Your task to perform on an android device: find which apps use the phone's location Image 0: 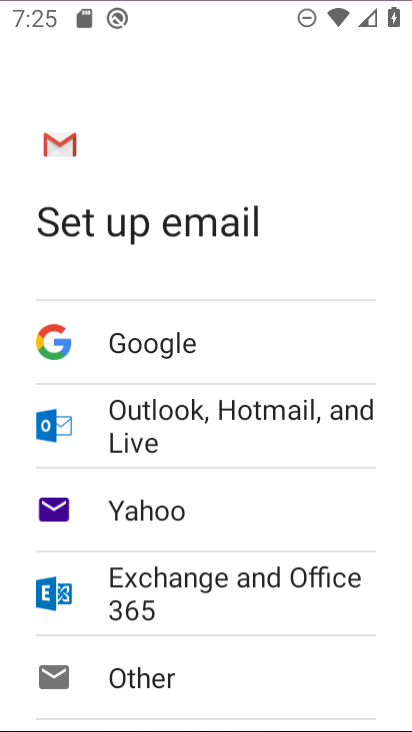
Step 0: drag from (345, 526) to (183, 20)
Your task to perform on an android device: find which apps use the phone's location Image 1: 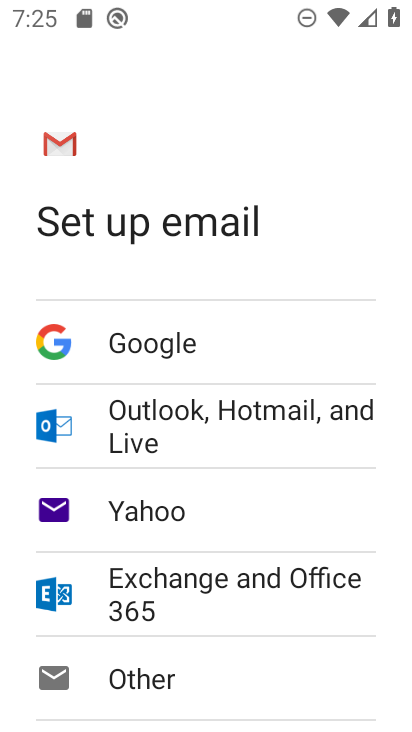
Step 1: press home button
Your task to perform on an android device: find which apps use the phone's location Image 2: 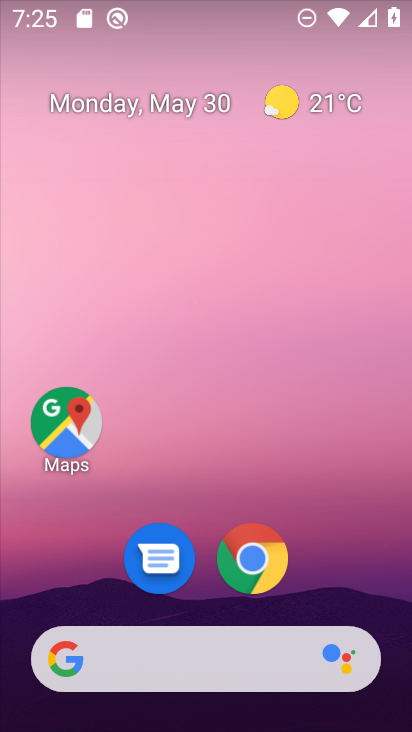
Step 2: drag from (330, 504) to (208, 33)
Your task to perform on an android device: find which apps use the phone's location Image 3: 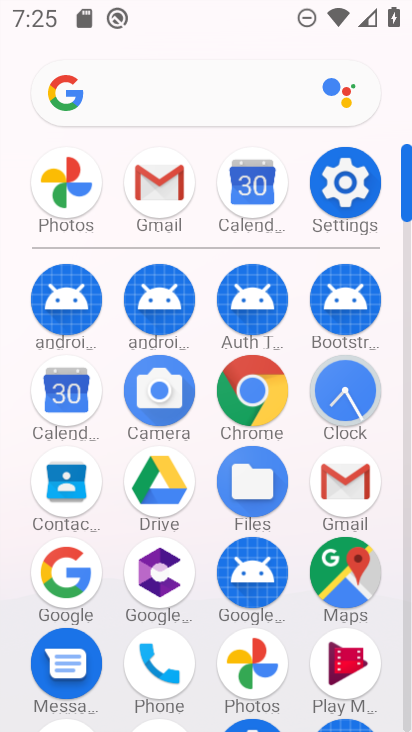
Step 3: click (343, 194)
Your task to perform on an android device: find which apps use the phone's location Image 4: 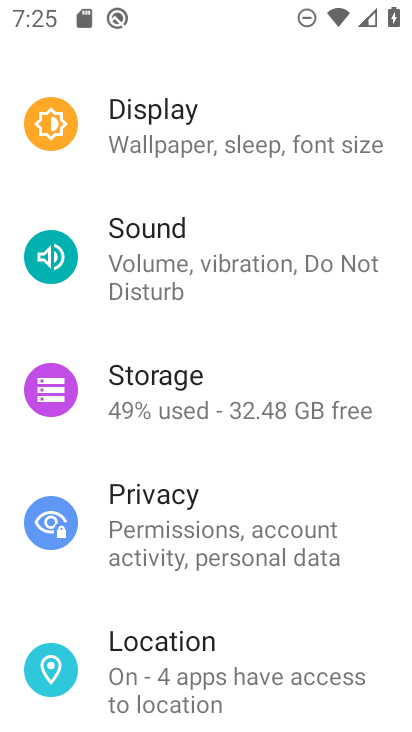
Step 4: click (150, 649)
Your task to perform on an android device: find which apps use the phone's location Image 5: 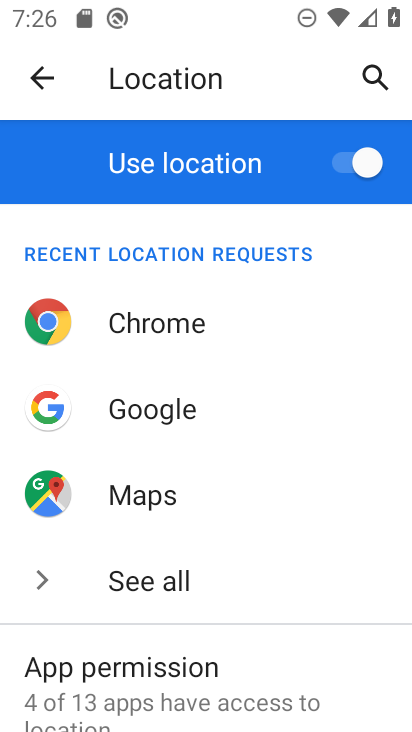
Step 5: click (139, 573)
Your task to perform on an android device: find which apps use the phone's location Image 6: 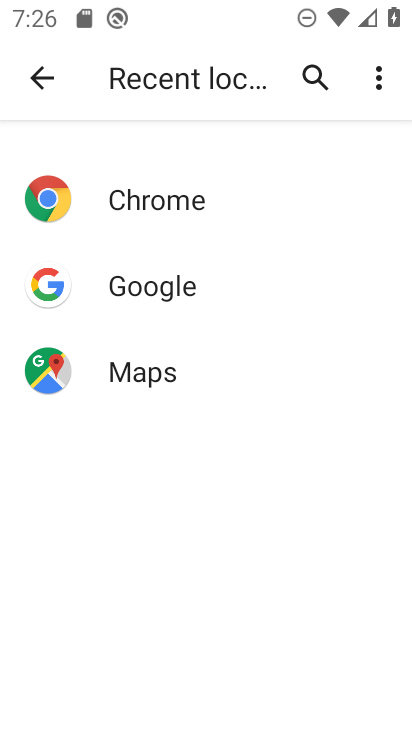
Step 6: task complete